Your task to perform on an android device: turn off priority inbox in the gmail app Image 0: 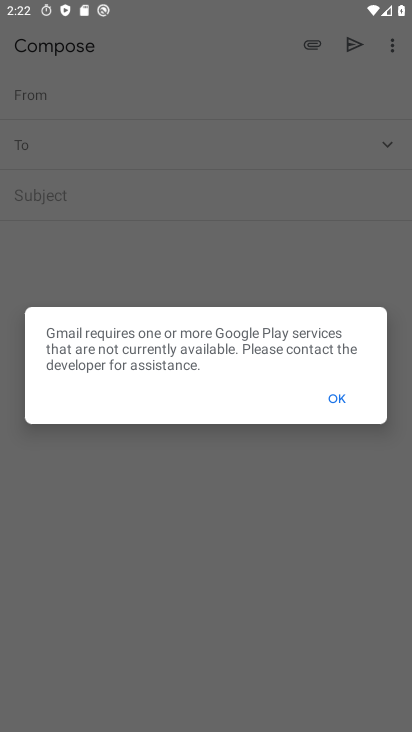
Step 0: press home button
Your task to perform on an android device: turn off priority inbox in the gmail app Image 1: 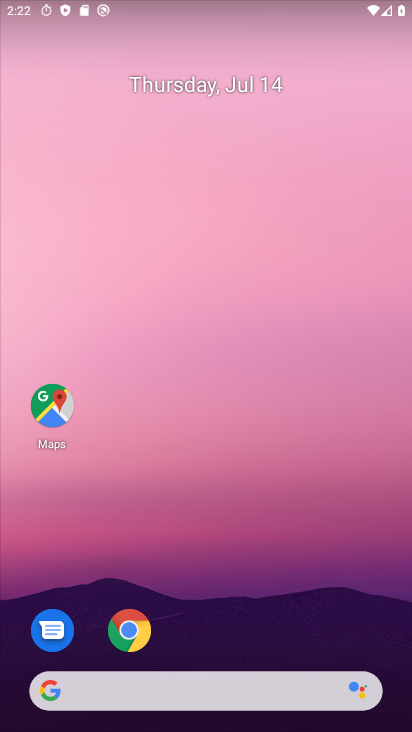
Step 1: drag from (307, 644) to (309, 201)
Your task to perform on an android device: turn off priority inbox in the gmail app Image 2: 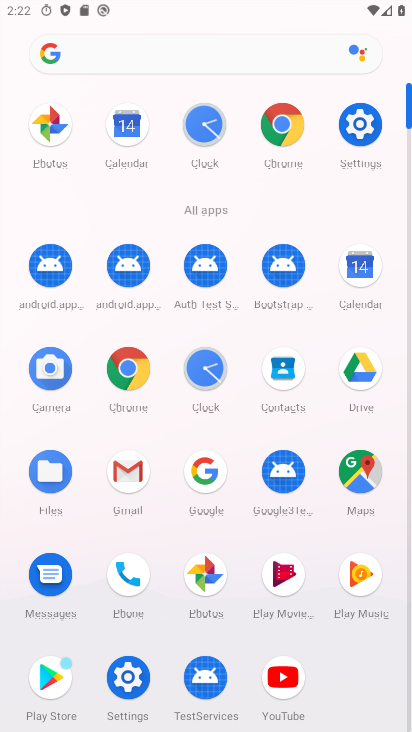
Step 2: click (128, 480)
Your task to perform on an android device: turn off priority inbox in the gmail app Image 3: 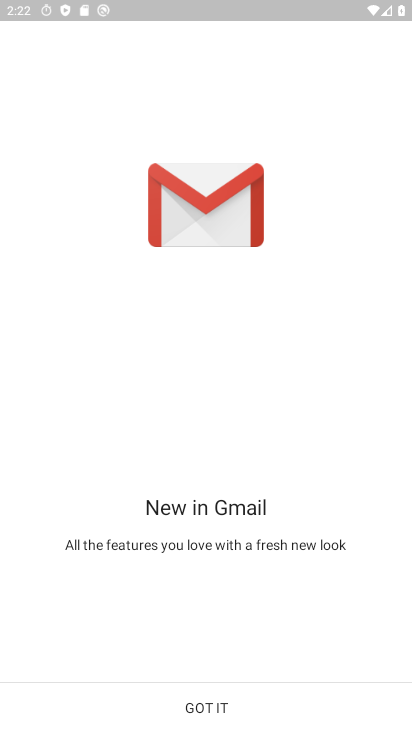
Step 3: click (278, 719)
Your task to perform on an android device: turn off priority inbox in the gmail app Image 4: 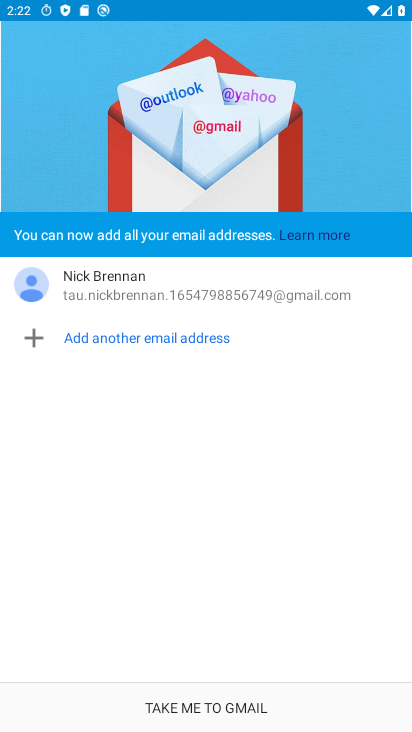
Step 4: click (278, 719)
Your task to perform on an android device: turn off priority inbox in the gmail app Image 5: 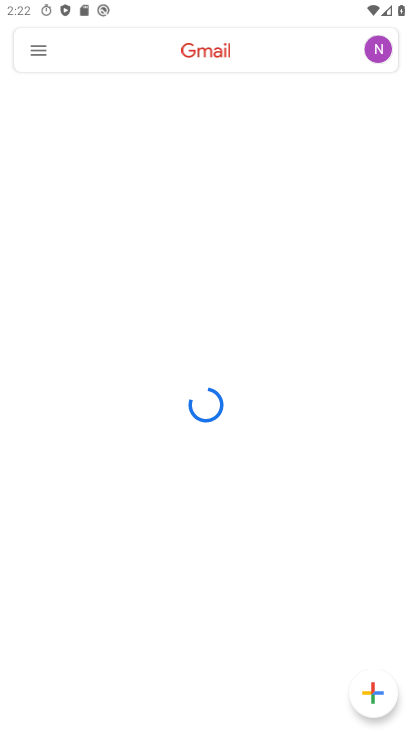
Step 5: click (34, 46)
Your task to perform on an android device: turn off priority inbox in the gmail app Image 6: 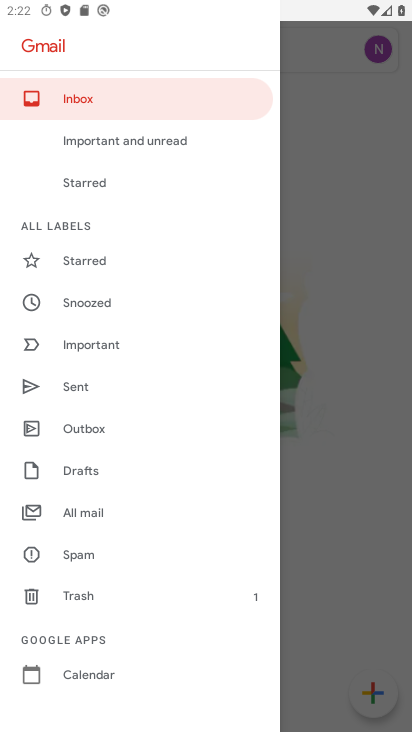
Step 6: drag from (146, 687) to (155, 351)
Your task to perform on an android device: turn off priority inbox in the gmail app Image 7: 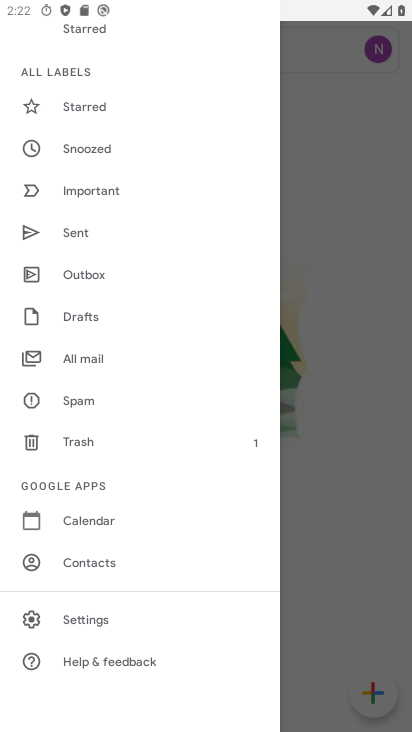
Step 7: click (130, 620)
Your task to perform on an android device: turn off priority inbox in the gmail app Image 8: 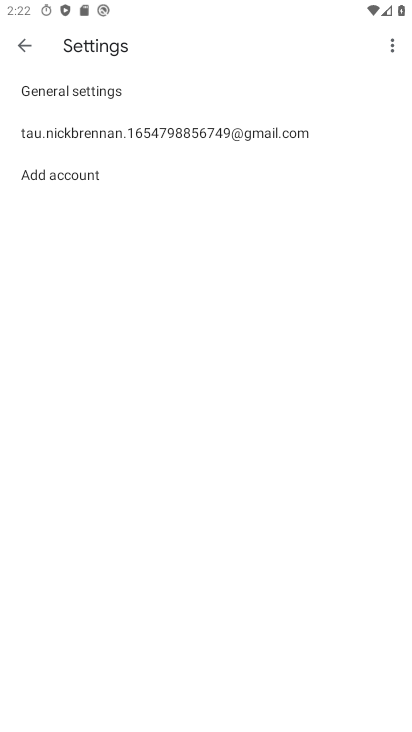
Step 8: click (136, 131)
Your task to perform on an android device: turn off priority inbox in the gmail app Image 9: 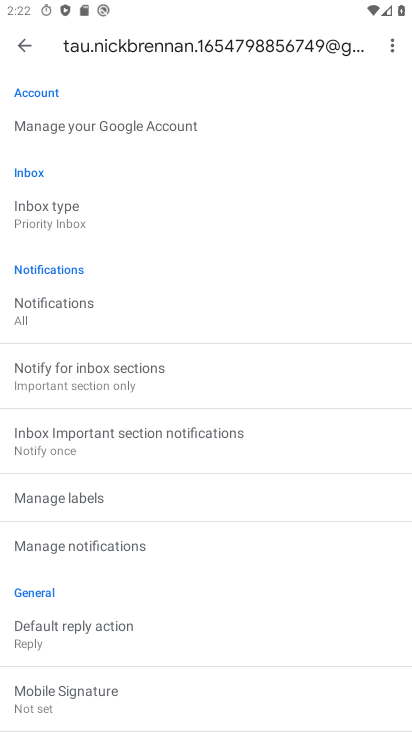
Step 9: click (89, 199)
Your task to perform on an android device: turn off priority inbox in the gmail app Image 10: 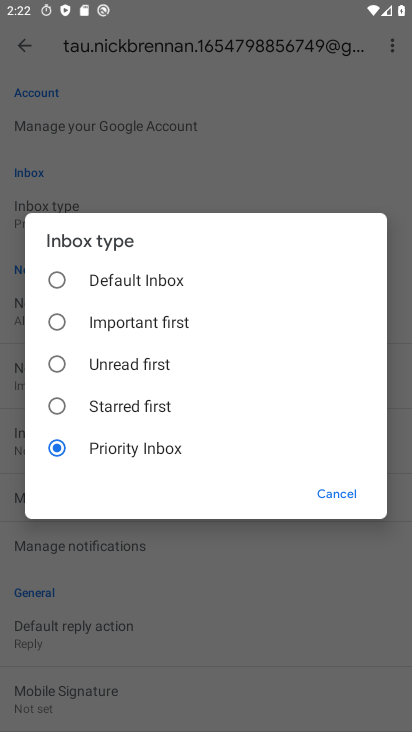
Step 10: click (134, 287)
Your task to perform on an android device: turn off priority inbox in the gmail app Image 11: 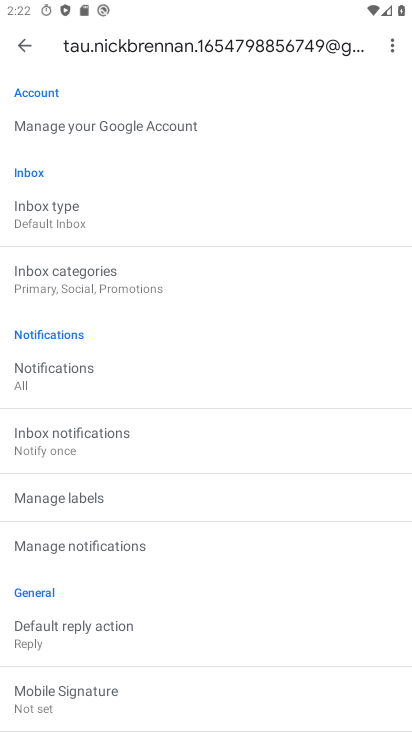
Step 11: task complete